Your task to perform on an android device: change timer sound Image 0: 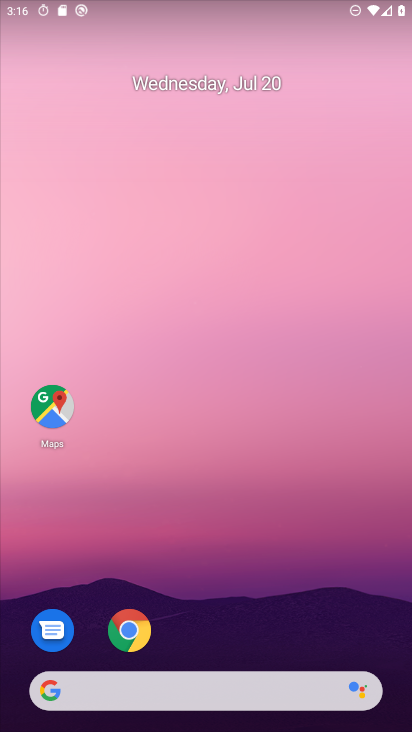
Step 0: drag from (283, 615) to (213, 170)
Your task to perform on an android device: change timer sound Image 1: 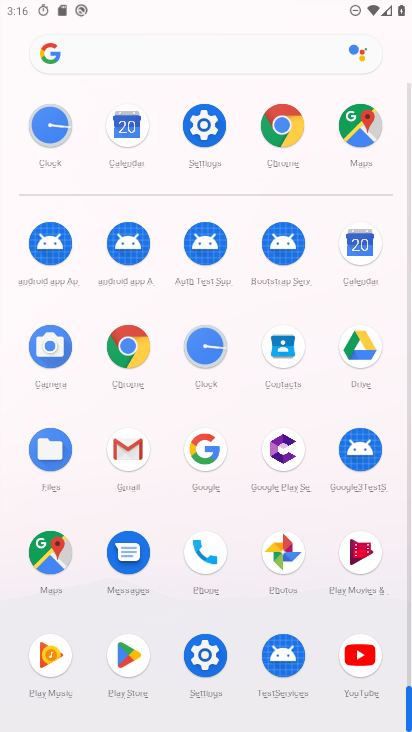
Step 1: click (207, 341)
Your task to perform on an android device: change timer sound Image 2: 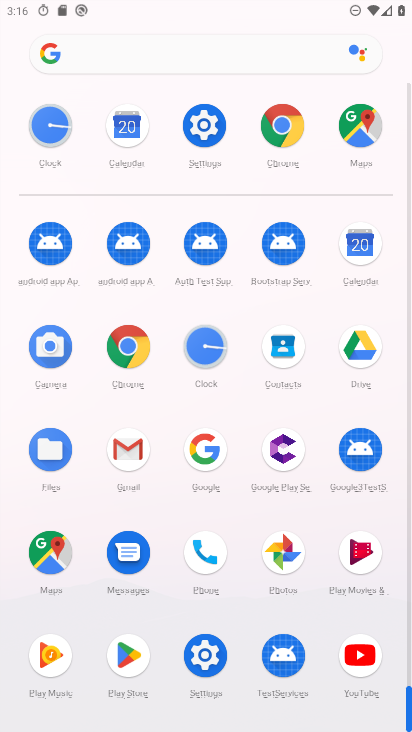
Step 2: click (207, 341)
Your task to perform on an android device: change timer sound Image 3: 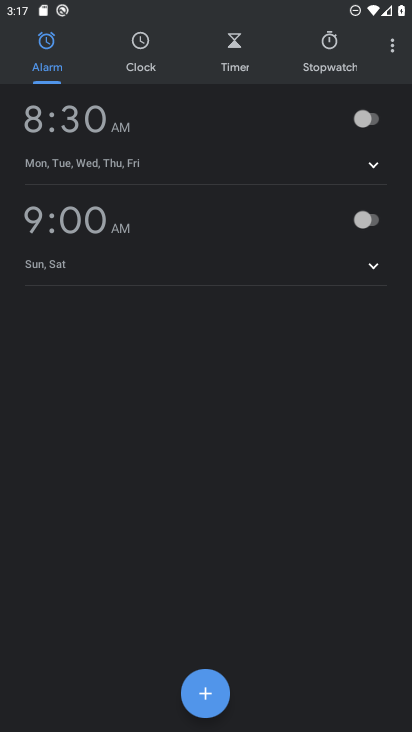
Step 3: click (389, 50)
Your task to perform on an android device: change timer sound Image 4: 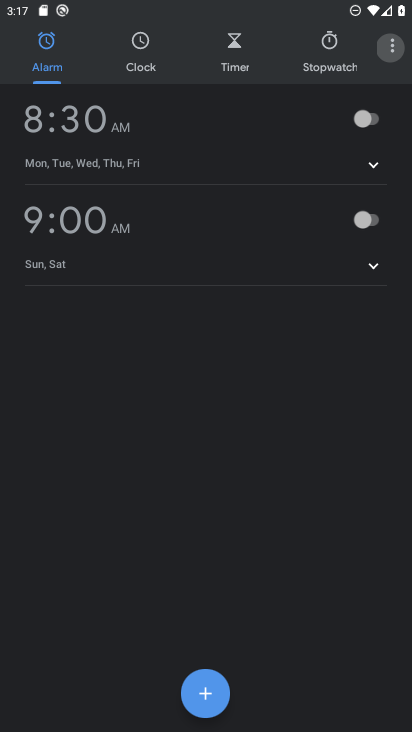
Step 4: click (391, 51)
Your task to perform on an android device: change timer sound Image 5: 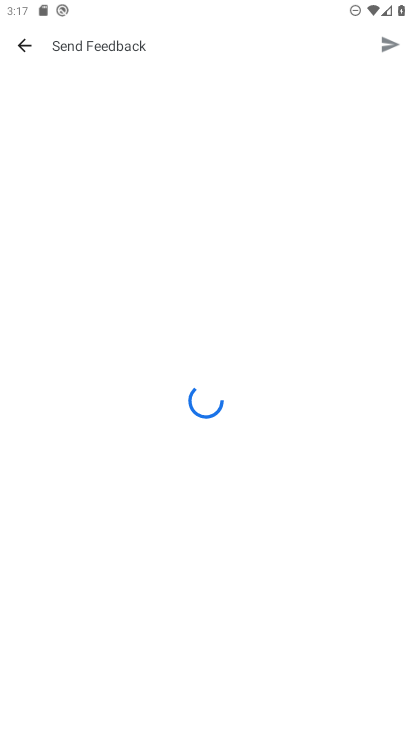
Step 5: click (26, 43)
Your task to perform on an android device: change timer sound Image 6: 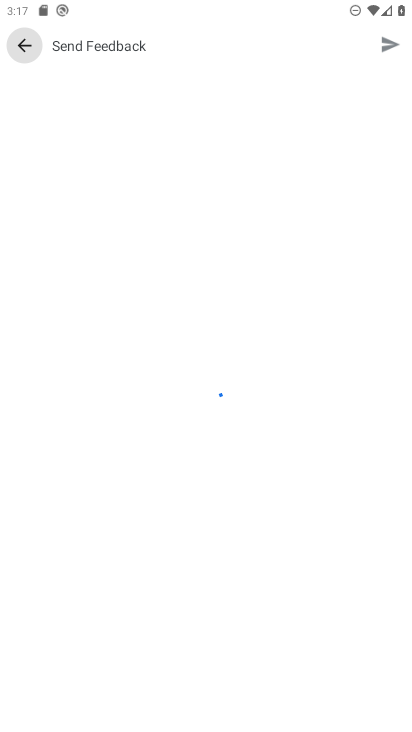
Step 6: click (30, 46)
Your task to perform on an android device: change timer sound Image 7: 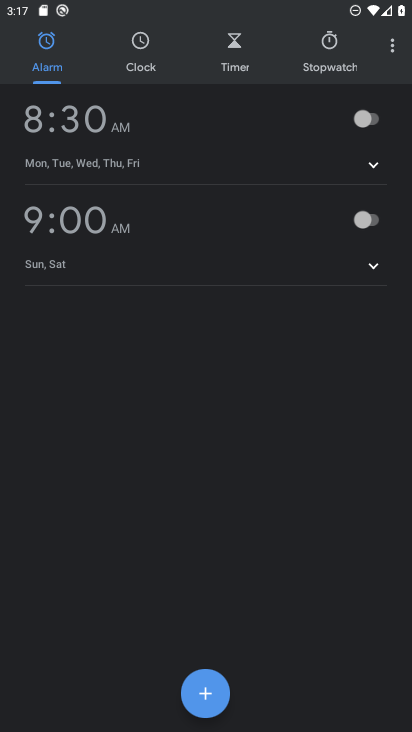
Step 7: click (395, 43)
Your task to perform on an android device: change timer sound Image 8: 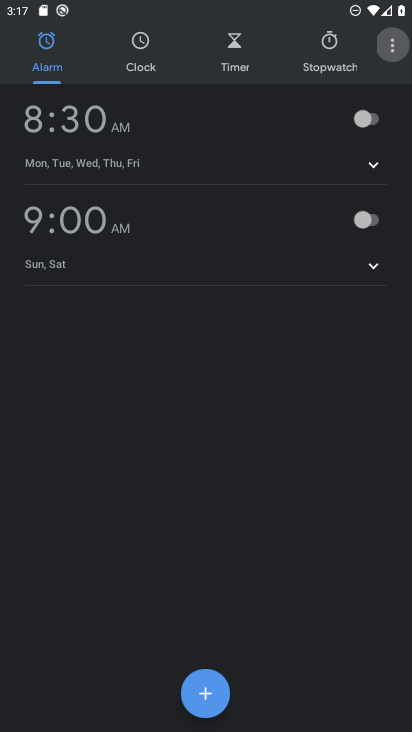
Step 8: click (395, 43)
Your task to perform on an android device: change timer sound Image 9: 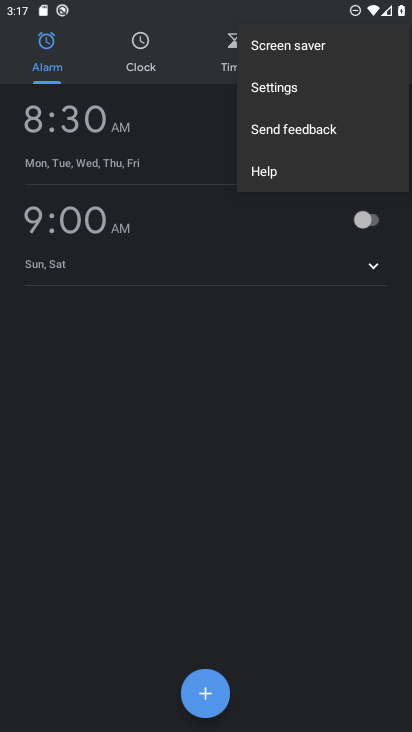
Step 9: click (258, 91)
Your task to perform on an android device: change timer sound Image 10: 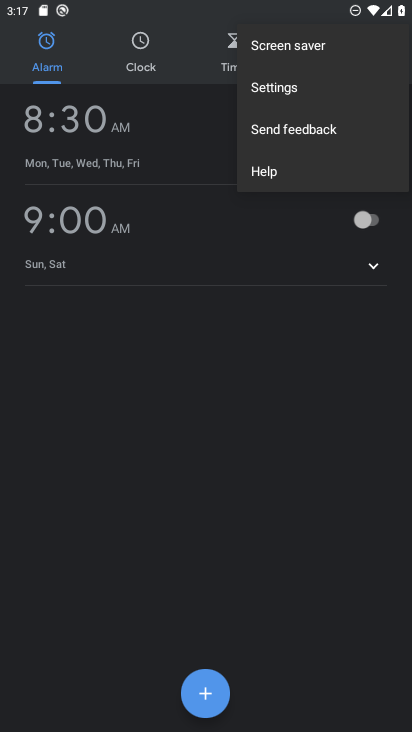
Step 10: click (264, 94)
Your task to perform on an android device: change timer sound Image 11: 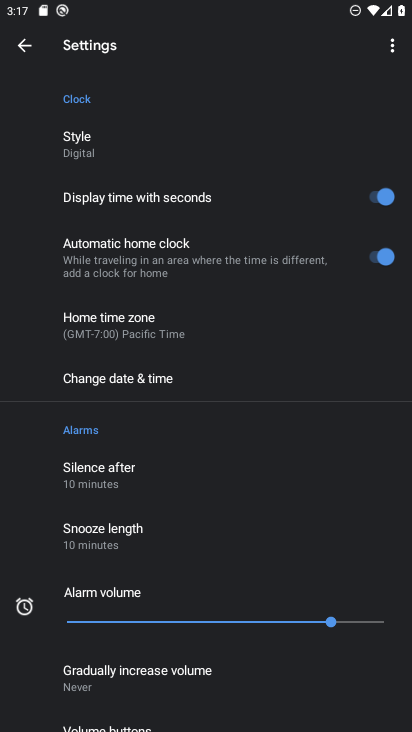
Step 11: drag from (133, 598) to (91, 296)
Your task to perform on an android device: change timer sound Image 12: 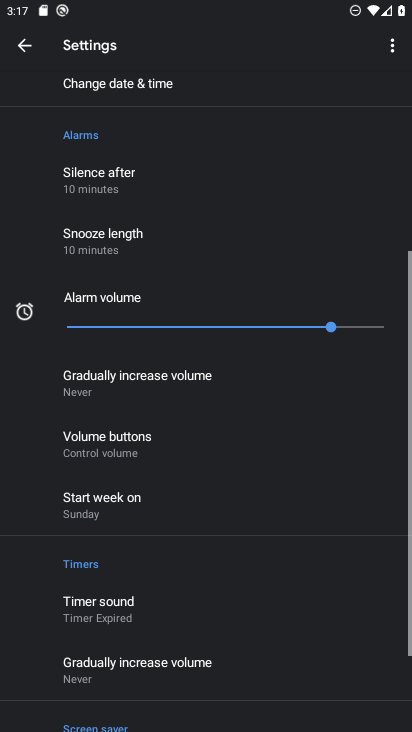
Step 12: drag from (73, 633) to (95, 271)
Your task to perform on an android device: change timer sound Image 13: 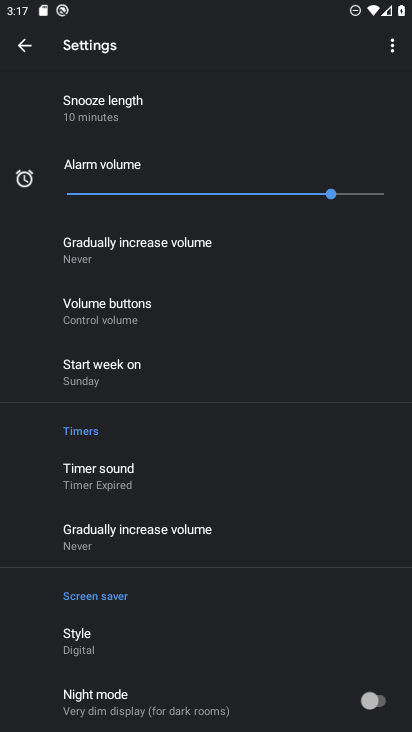
Step 13: click (88, 477)
Your task to perform on an android device: change timer sound Image 14: 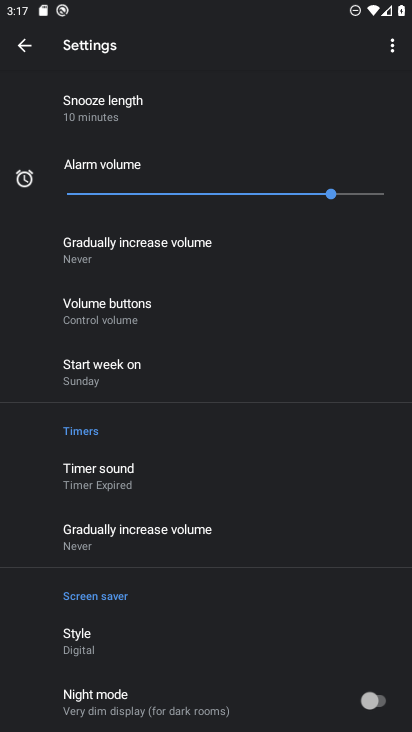
Step 14: click (88, 477)
Your task to perform on an android device: change timer sound Image 15: 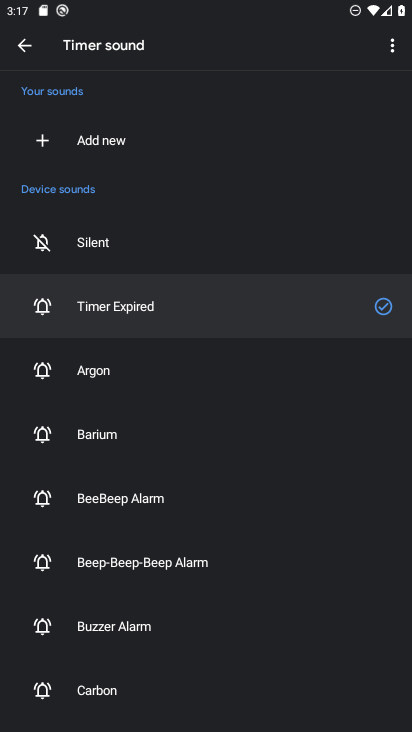
Step 15: click (53, 497)
Your task to perform on an android device: change timer sound Image 16: 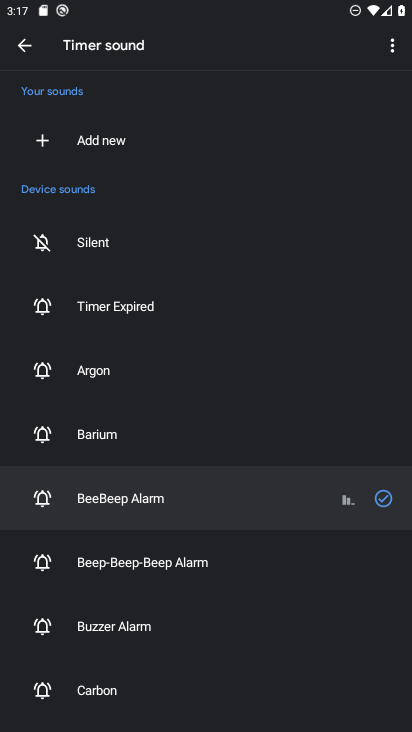
Step 16: task complete